Your task to perform on an android device: Open calendar and show me the second week of next month Image 0: 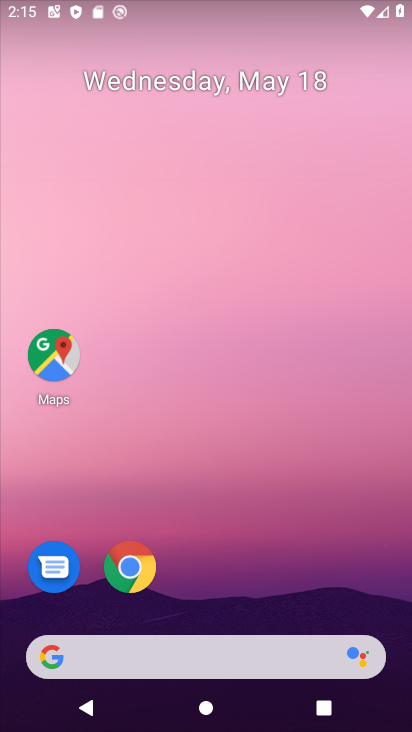
Step 0: drag from (266, 546) to (300, 89)
Your task to perform on an android device: Open calendar and show me the second week of next month Image 1: 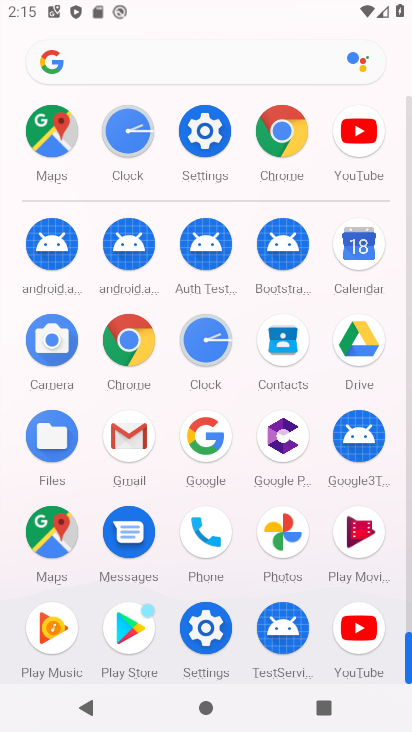
Step 1: click (354, 239)
Your task to perform on an android device: Open calendar and show me the second week of next month Image 2: 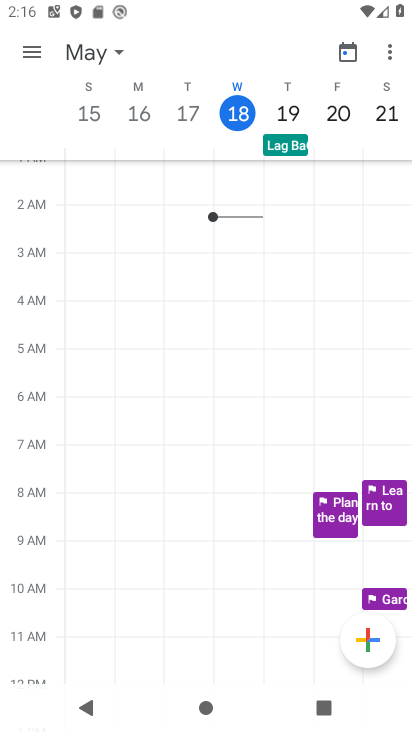
Step 2: click (97, 58)
Your task to perform on an android device: Open calendar and show me the second week of next month Image 3: 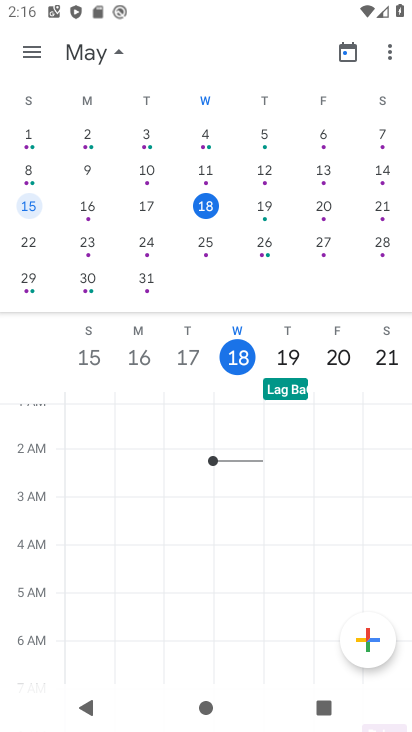
Step 3: drag from (324, 183) to (56, 201)
Your task to perform on an android device: Open calendar and show me the second week of next month Image 4: 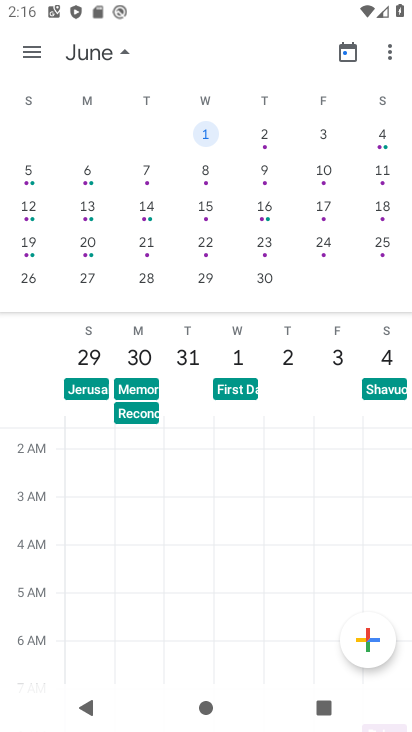
Step 4: drag from (346, 435) to (57, 457)
Your task to perform on an android device: Open calendar and show me the second week of next month Image 5: 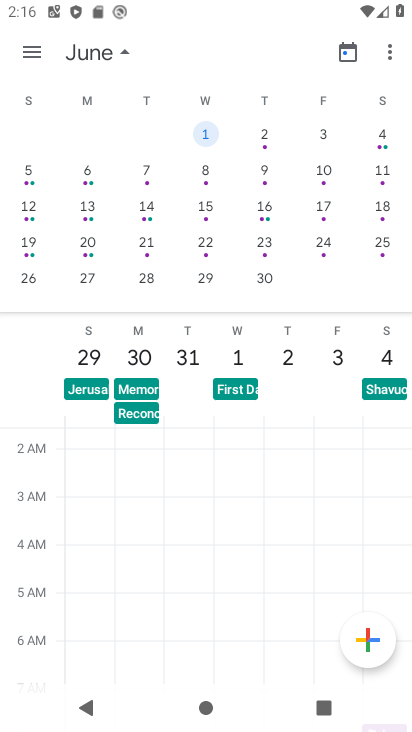
Step 5: drag from (333, 370) to (16, 367)
Your task to perform on an android device: Open calendar and show me the second week of next month Image 6: 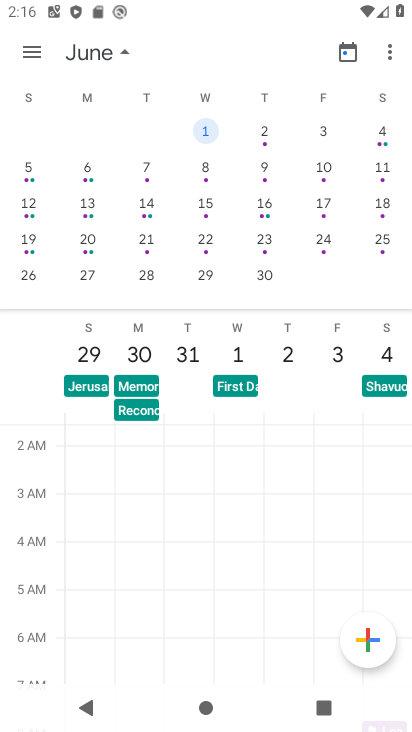
Step 6: click (36, 51)
Your task to perform on an android device: Open calendar and show me the second week of next month Image 7: 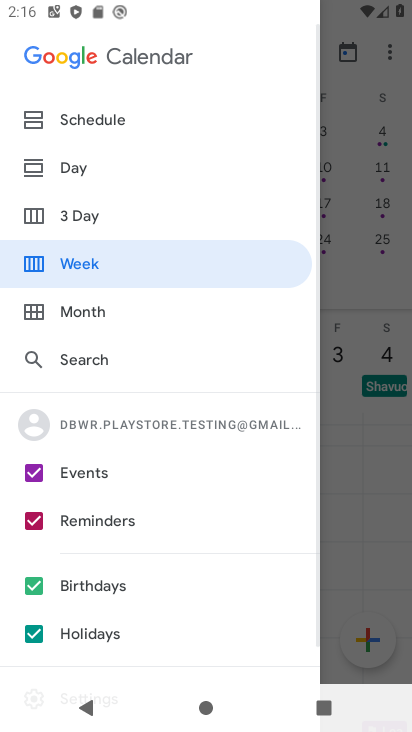
Step 7: click (94, 253)
Your task to perform on an android device: Open calendar and show me the second week of next month Image 8: 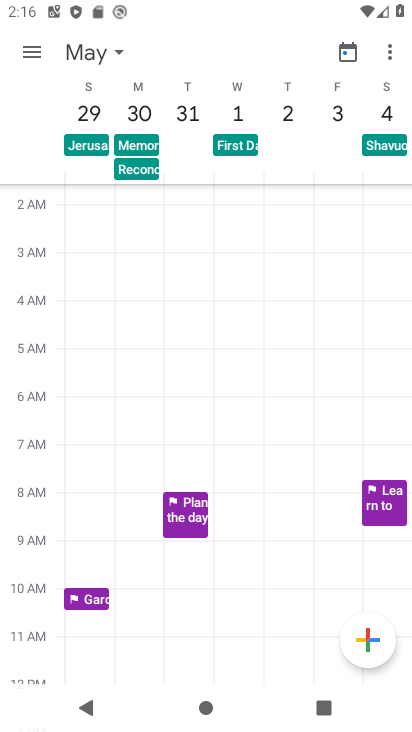
Step 8: task complete